Your task to perform on an android device: Install the Calendar app Image 0: 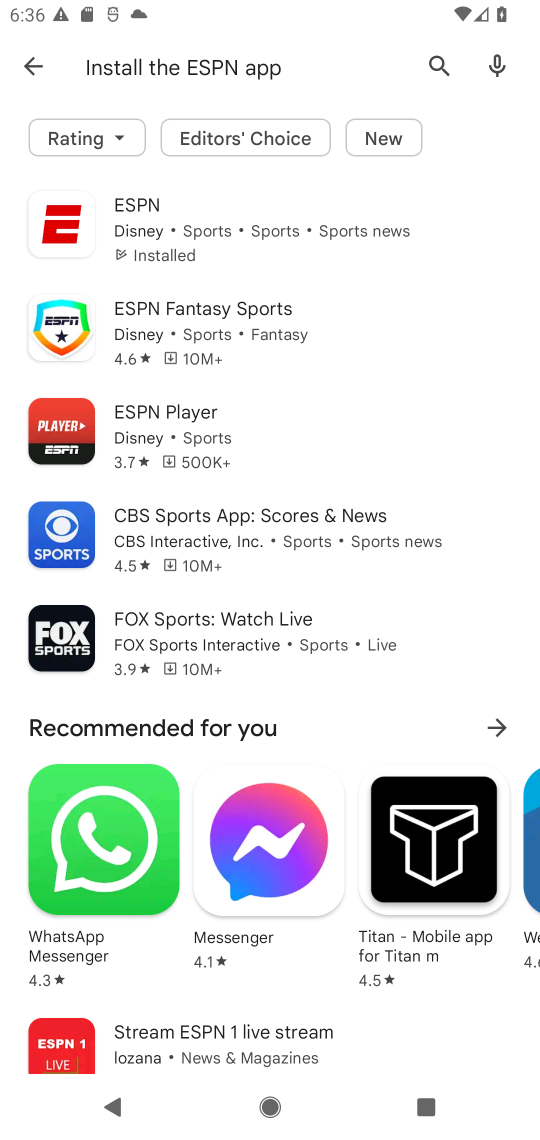
Step 0: press home button
Your task to perform on an android device: Install the Calendar app Image 1: 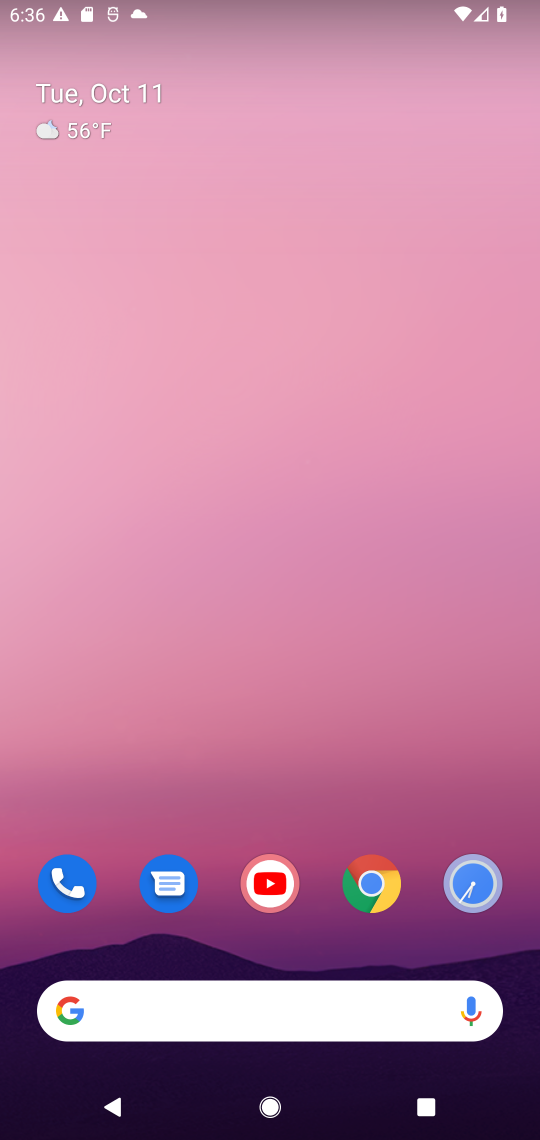
Step 1: drag from (328, 929) to (364, 13)
Your task to perform on an android device: Install the Calendar app Image 2: 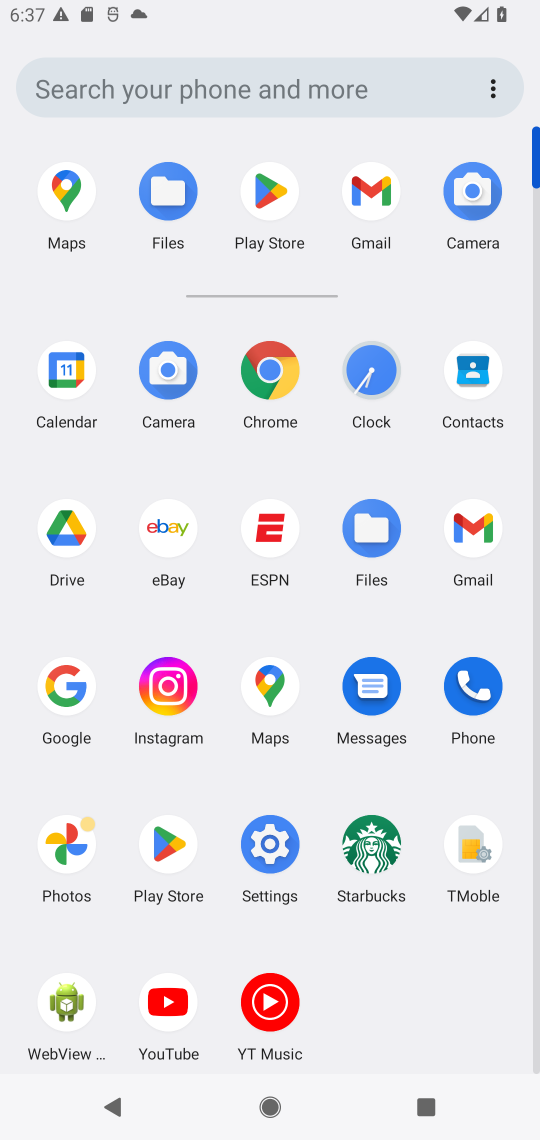
Step 2: click (274, 193)
Your task to perform on an android device: Install the Calendar app Image 3: 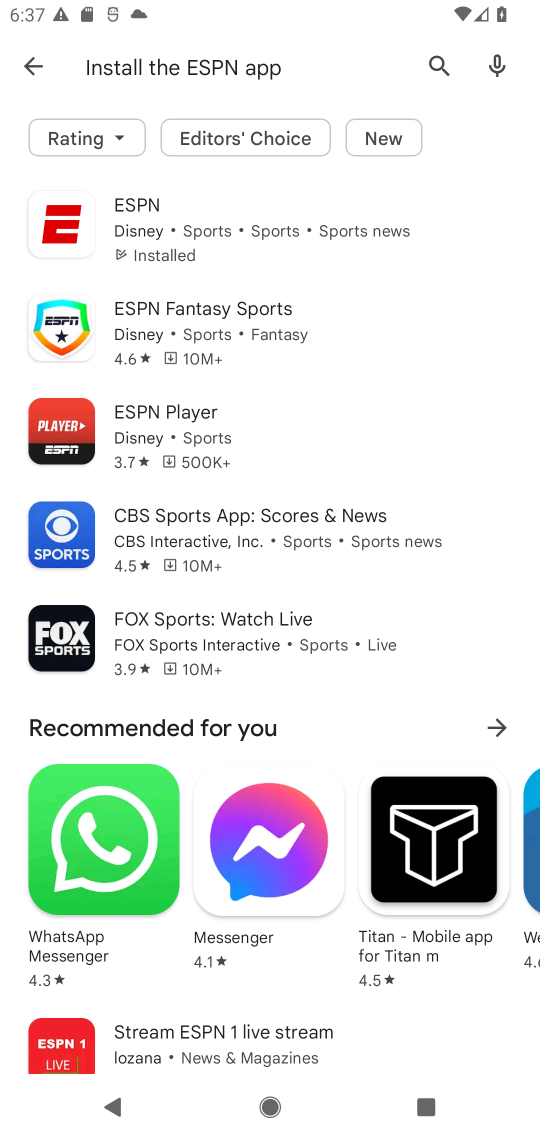
Step 3: click (270, 70)
Your task to perform on an android device: Install the Calendar app Image 4: 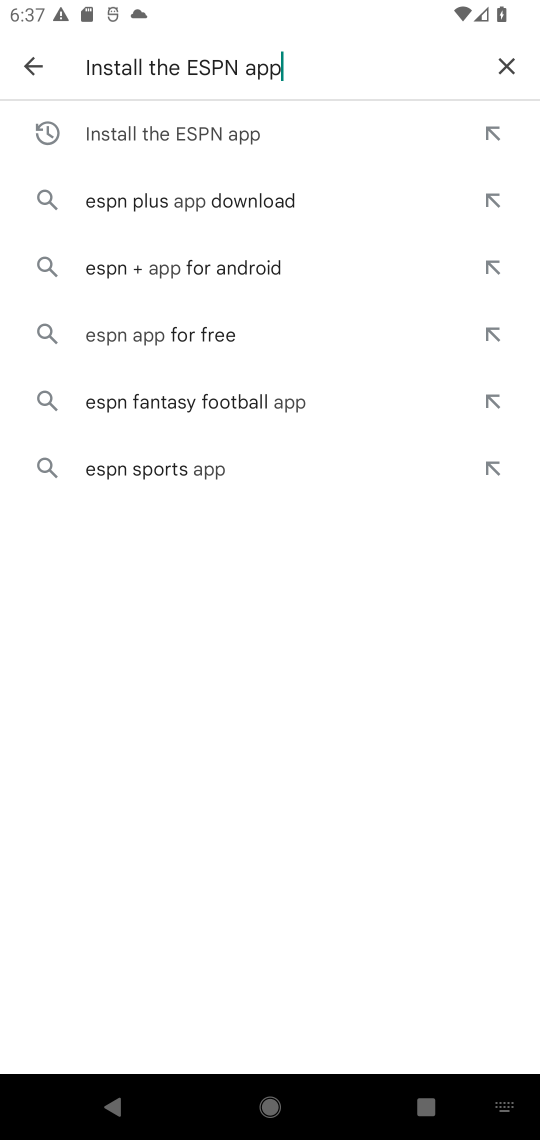
Step 4: click (502, 69)
Your task to perform on an android device: Install the Calendar app Image 5: 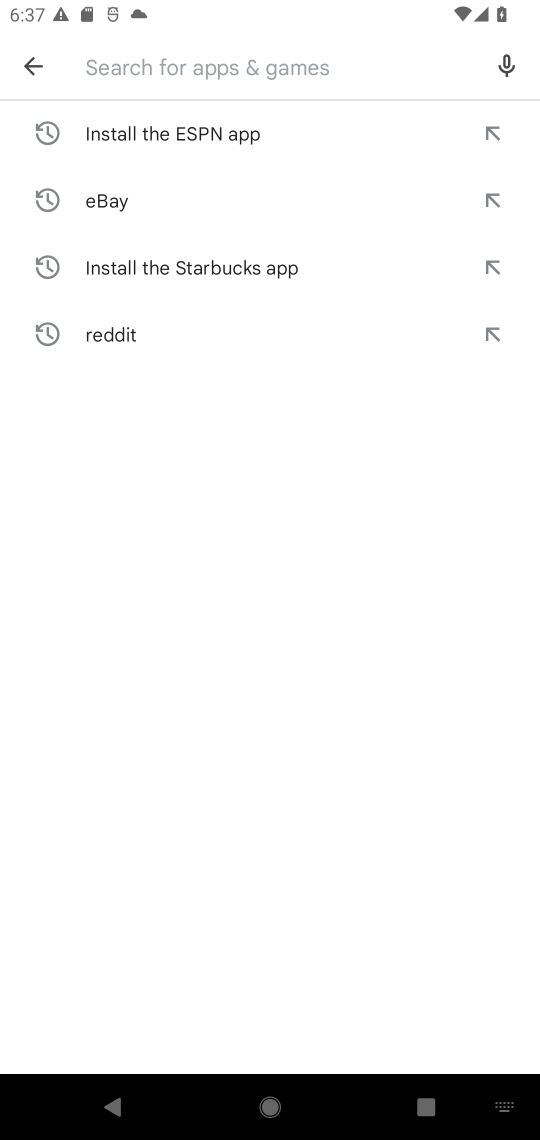
Step 5: type "Calendar"
Your task to perform on an android device: Install the Calendar app Image 6: 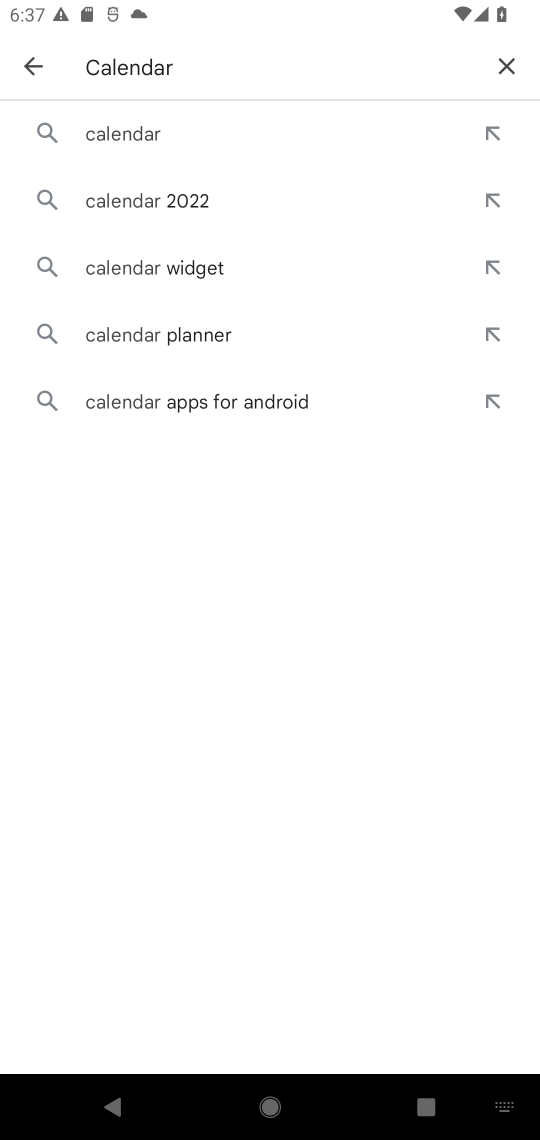
Step 6: press enter
Your task to perform on an android device: Install the Calendar app Image 7: 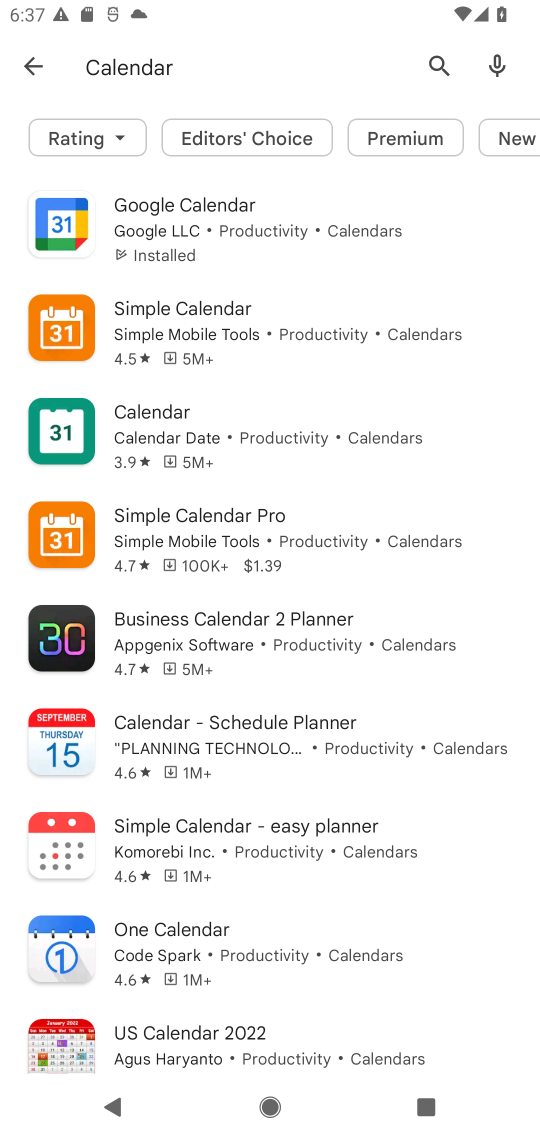
Step 7: click (184, 220)
Your task to perform on an android device: Install the Calendar app Image 8: 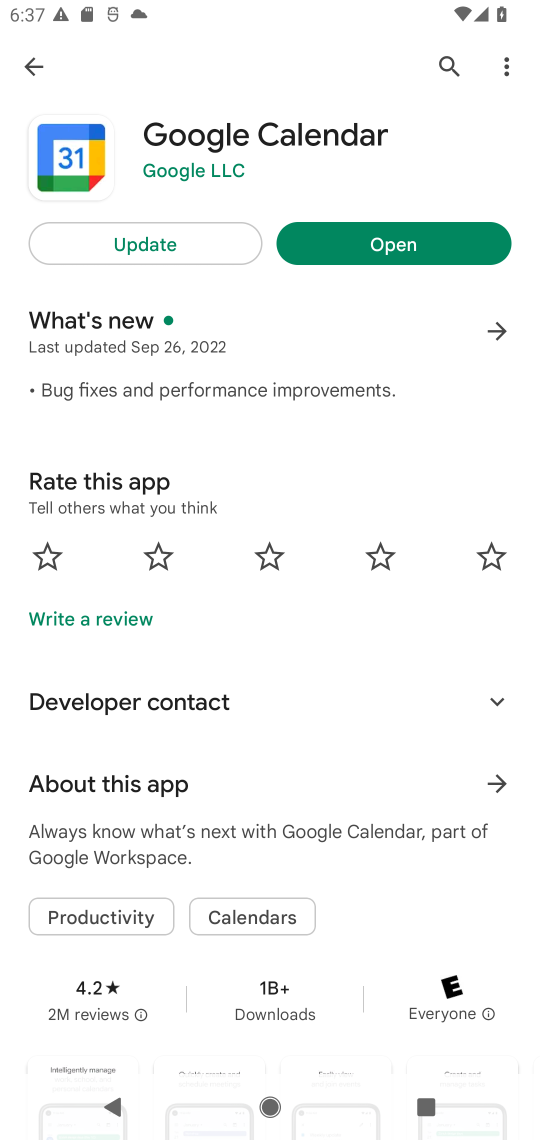
Step 8: task complete